Your task to perform on an android device: open chrome and create a bookmark for the current page Image 0: 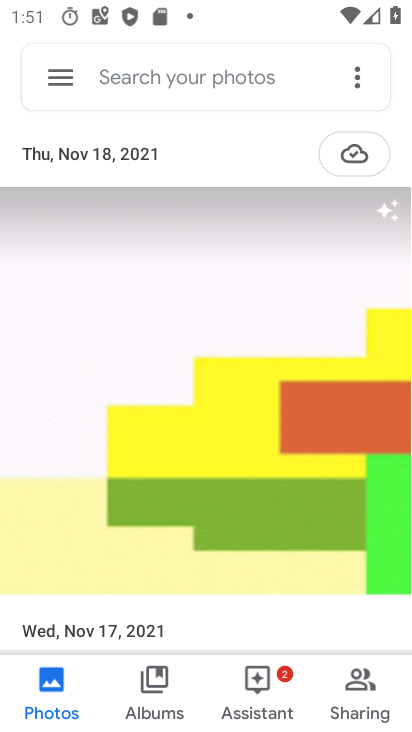
Step 0: press home button
Your task to perform on an android device: open chrome and create a bookmark for the current page Image 1: 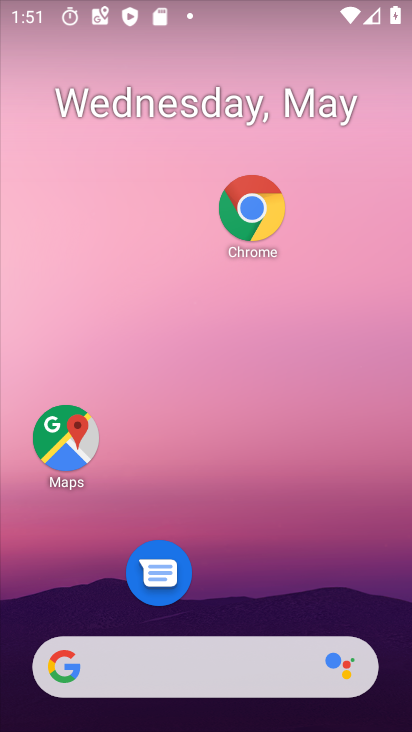
Step 1: click (244, 212)
Your task to perform on an android device: open chrome and create a bookmark for the current page Image 2: 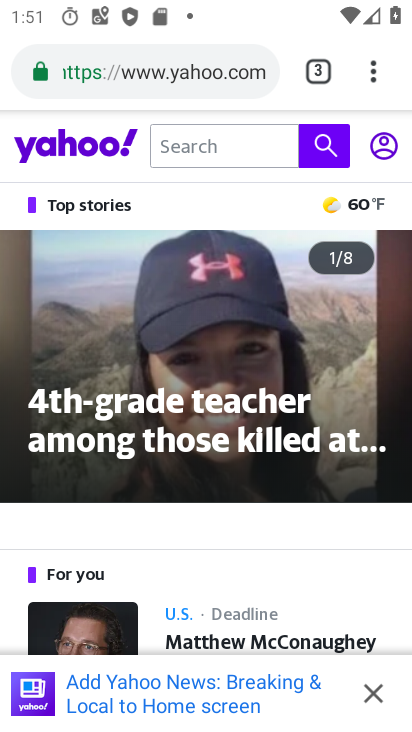
Step 2: click (376, 71)
Your task to perform on an android device: open chrome and create a bookmark for the current page Image 3: 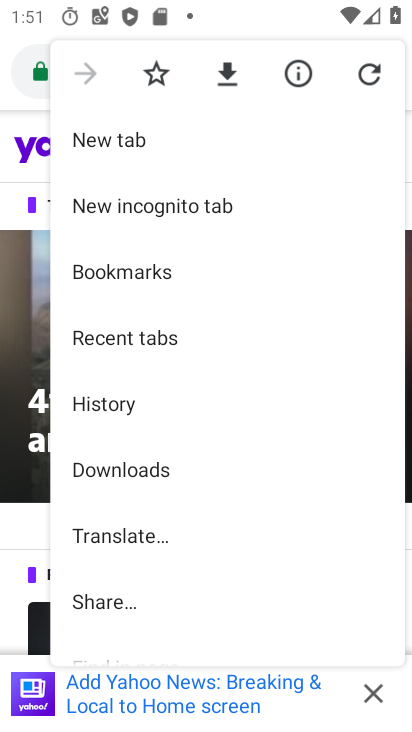
Step 3: click (155, 77)
Your task to perform on an android device: open chrome and create a bookmark for the current page Image 4: 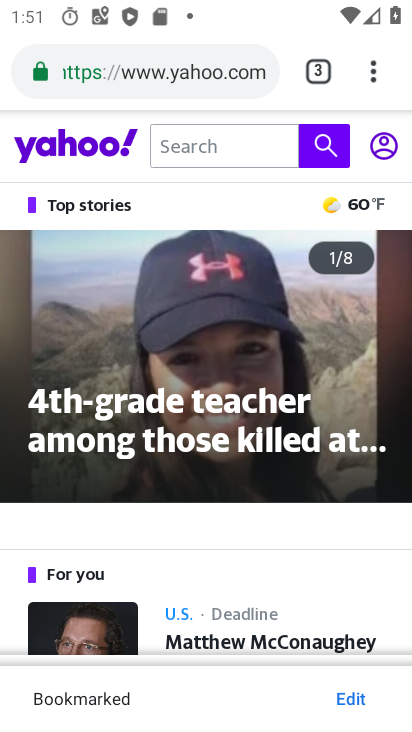
Step 4: task complete